Your task to perform on an android device: Open Google Chrome and open the bookmarks view Image 0: 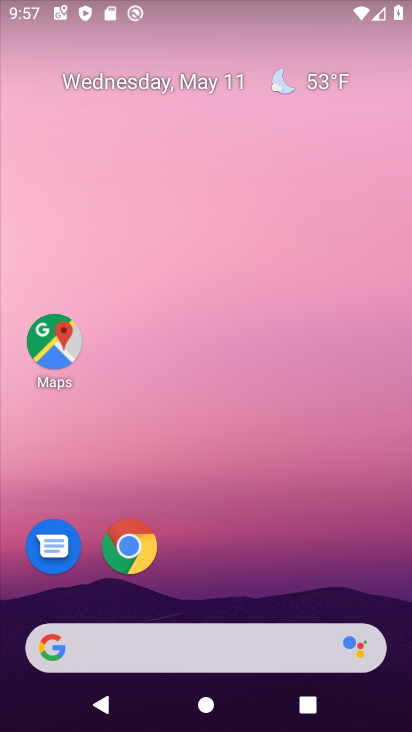
Step 0: drag from (395, 623) to (350, 62)
Your task to perform on an android device: Open Google Chrome and open the bookmarks view Image 1: 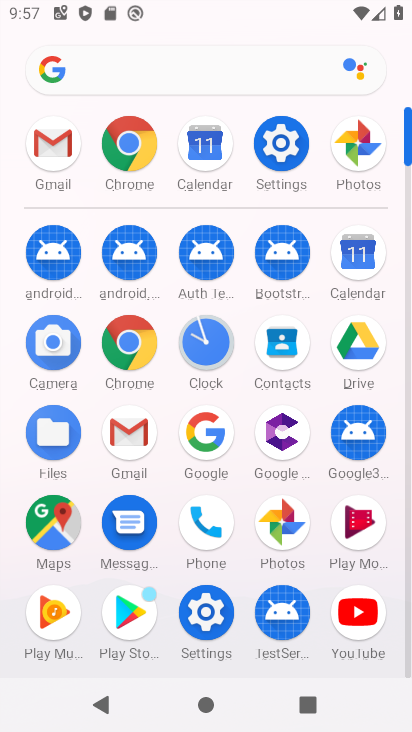
Step 1: click (137, 349)
Your task to perform on an android device: Open Google Chrome and open the bookmarks view Image 2: 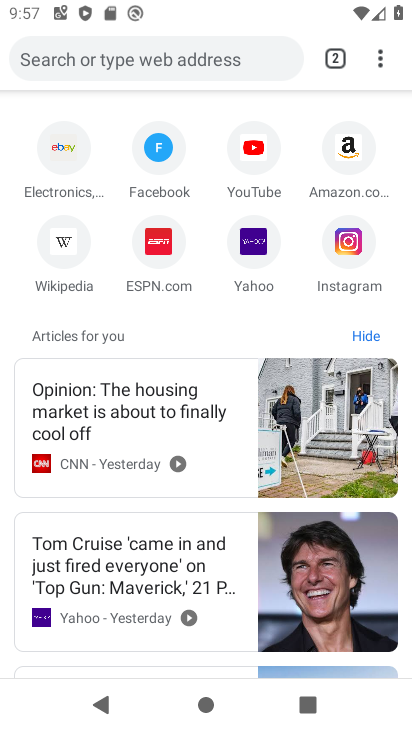
Step 2: click (381, 53)
Your task to perform on an android device: Open Google Chrome and open the bookmarks view Image 3: 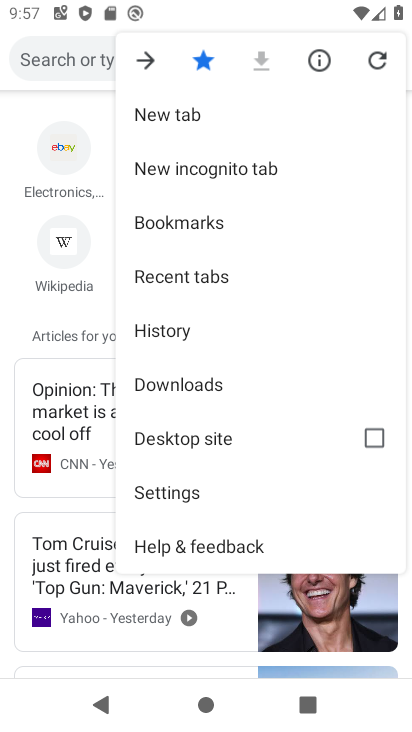
Step 3: click (187, 227)
Your task to perform on an android device: Open Google Chrome and open the bookmarks view Image 4: 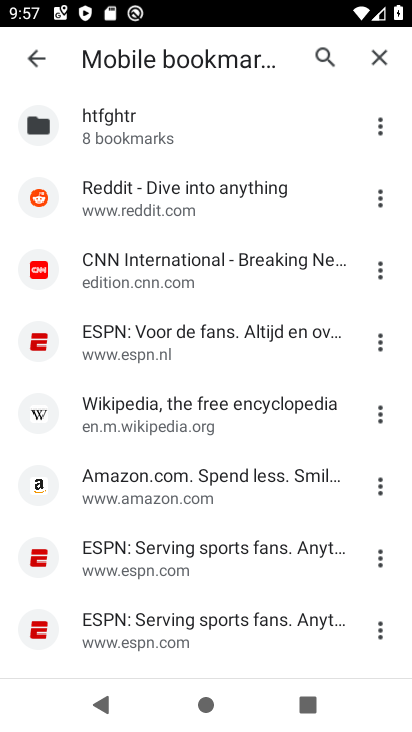
Step 4: task complete